Your task to perform on an android device: clear history in the chrome app Image 0: 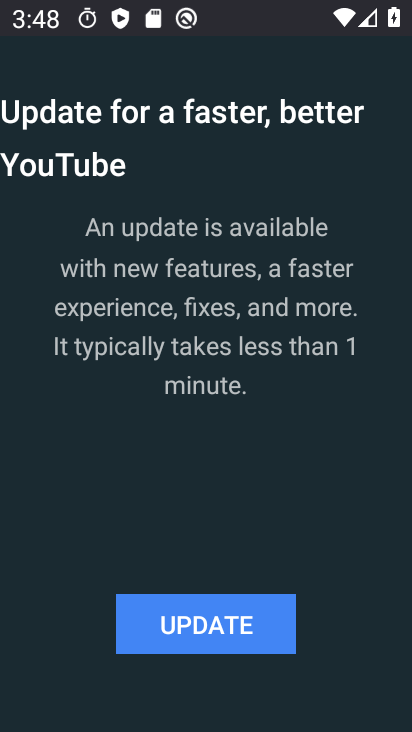
Step 0: press home button
Your task to perform on an android device: clear history in the chrome app Image 1: 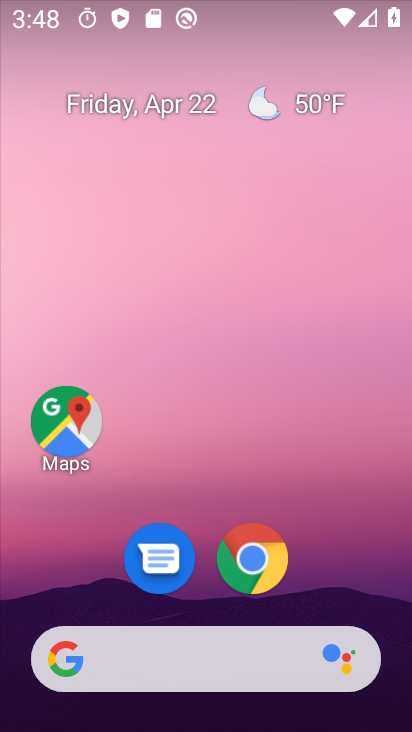
Step 1: click (282, 566)
Your task to perform on an android device: clear history in the chrome app Image 2: 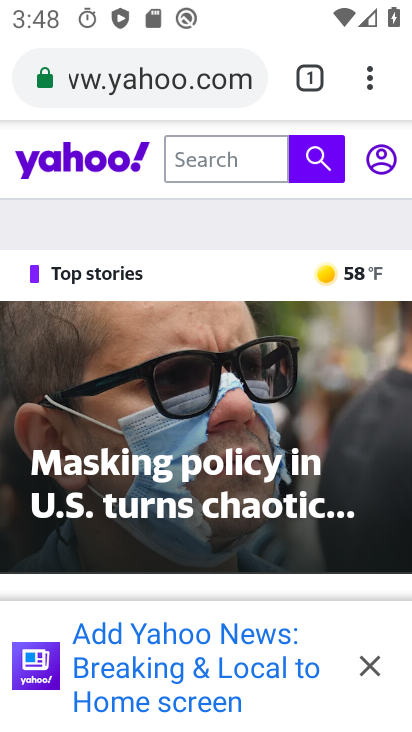
Step 2: click (369, 83)
Your task to perform on an android device: clear history in the chrome app Image 3: 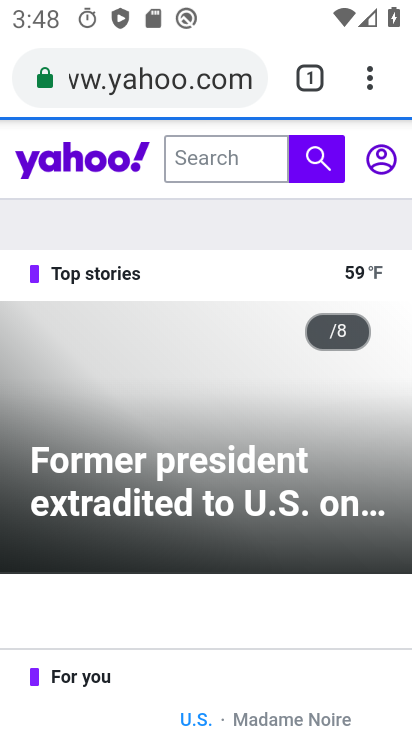
Step 3: click (372, 78)
Your task to perform on an android device: clear history in the chrome app Image 4: 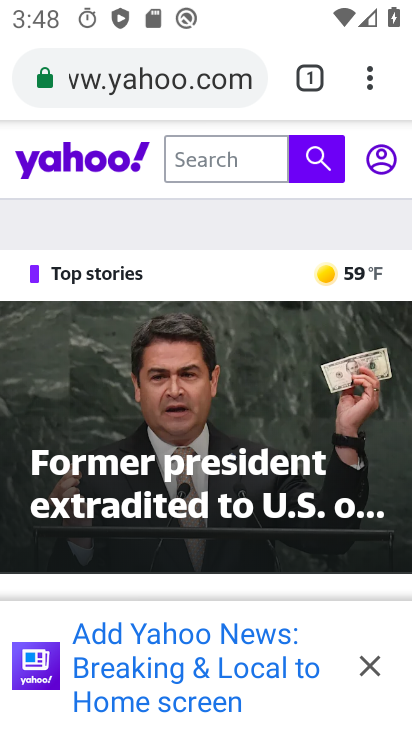
Step 4: click (372, 78)
Your task to perform on an android device: clear history in the chrome app Image 5: 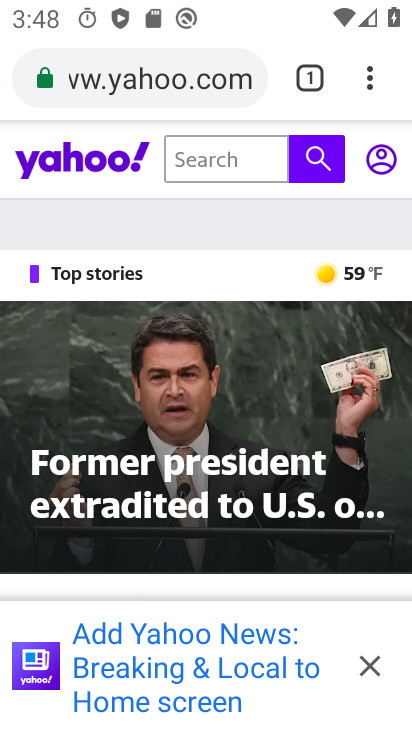
Step 5: click (372, 78)
Your task to perform on an android device: clear history in the chrome app Image 6: 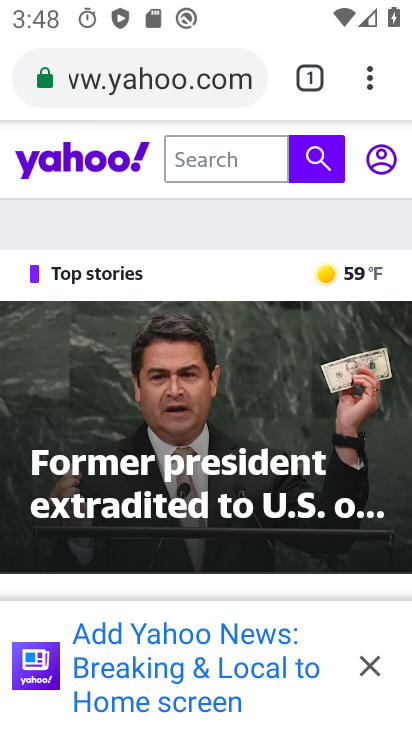
Step 6: click (374, 75)
Your task to perform on an android device: clear history in the chrome app Image 7: 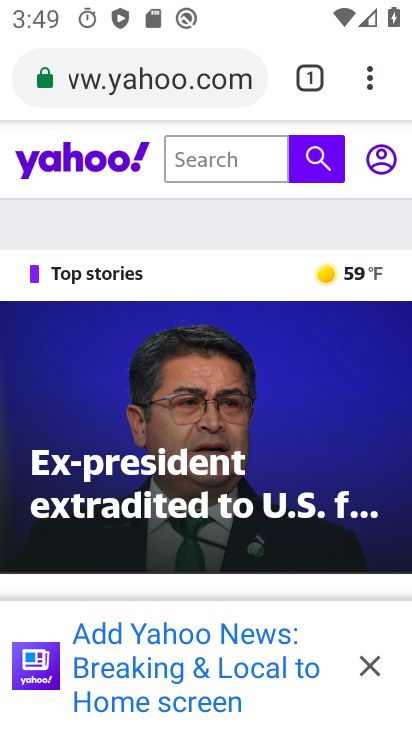
Step 7: click (367, 79)
Your task to perform on an android device: clear history in the chrome app Image 8: 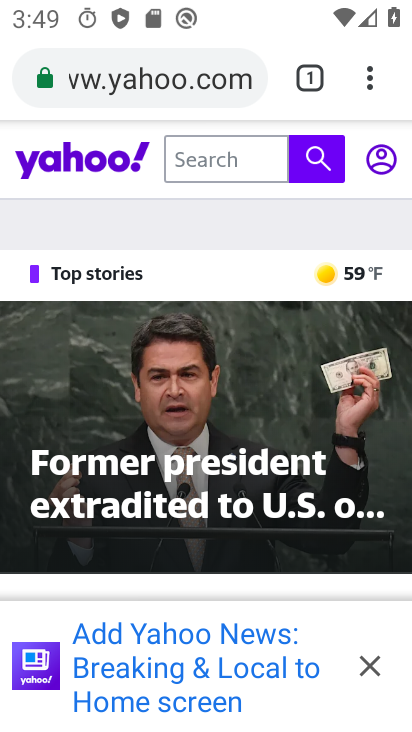
Step 8: click (374, 76)
Your task to perform on an android device: clear history in the chrome app Image 9: 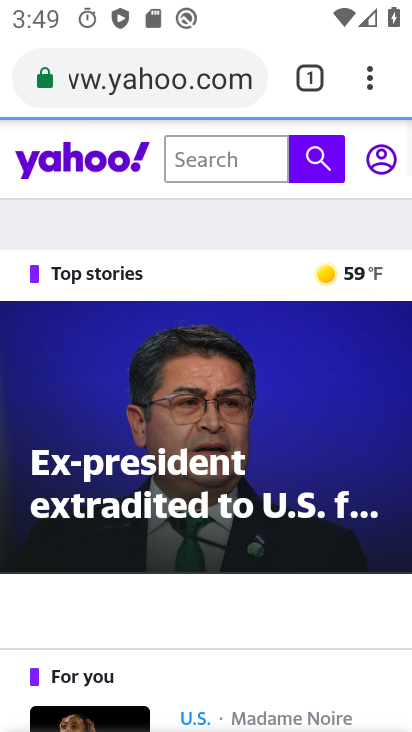
Step 9: click (370, 81)
Your task to perform on an android device: clear history in the chrome app Image 10: 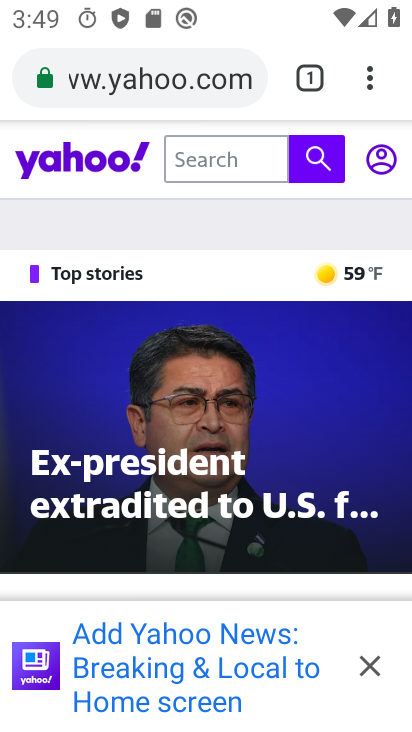
Step 10: click (370, 81)
Your task to perform on an android device: clear history in the chrome app Image 11: 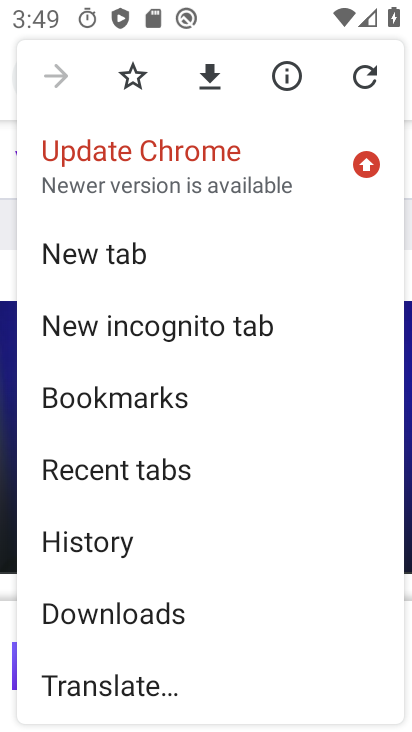
Step 11: click (95, 549)
Your task to perform on an android device: clear history in the chrome app Image 12: 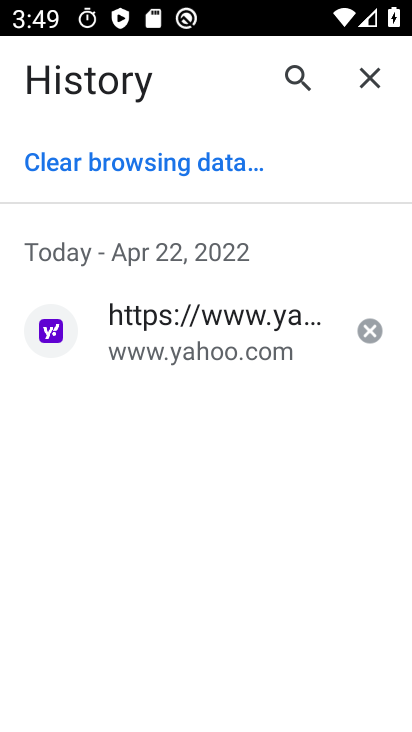
Step 12: click (165, 166)
Your task to perform on an android device: clear history in the chrome app Image 13: 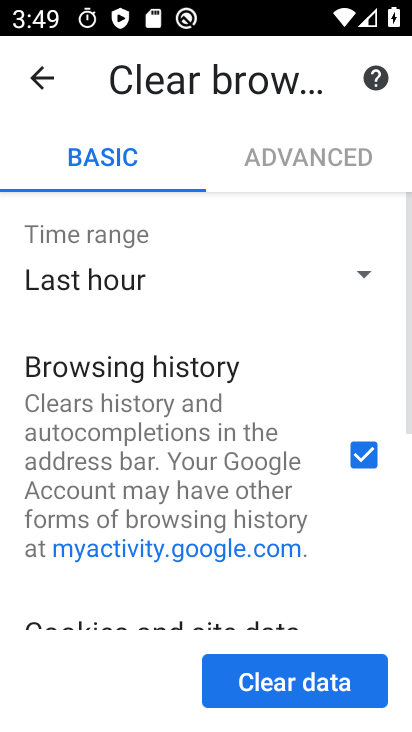
Step 13: click (243, 684)
Your task to perform on an android device: clear history in the chrome app Image 14: 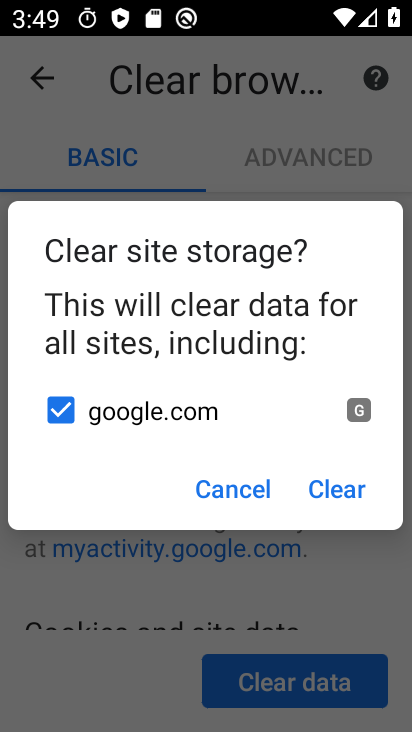
Step 14: click (342, 498)
Your task to perform on an android device: clear history in the chrome app Image 15: 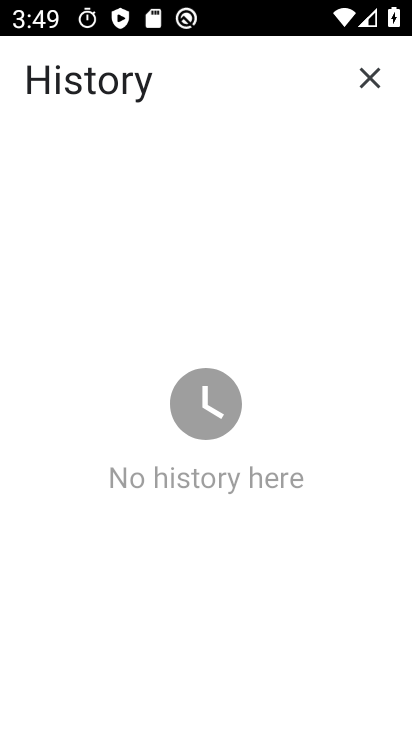
Step 15: task complete